Your task to perform on an android device: change notifications settings Image 0: 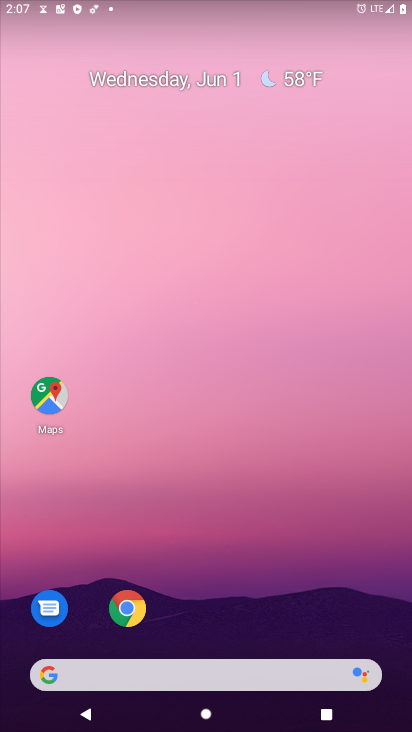
Step 0: drag from (275, 559) to (368, 3)
Your task to perform on an android device: change notifications settings Image 1: 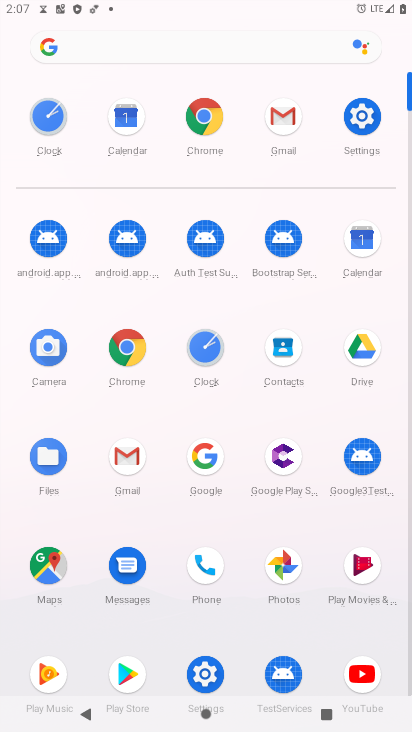
Step 1: click (365, 126)
Your task to perform on an android device: change notifications settings Image 2: 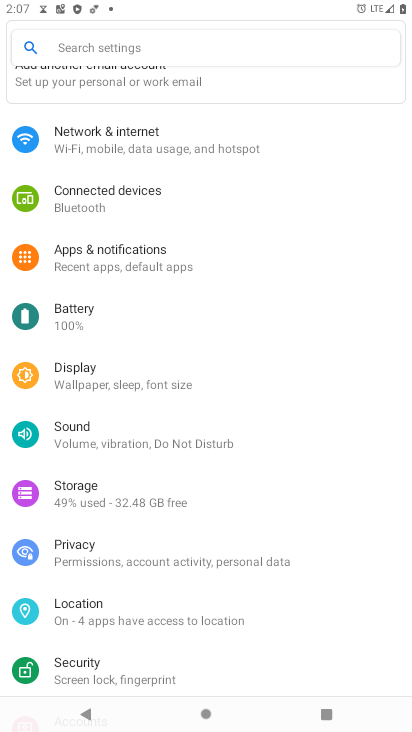
Step 2: click (130, 243)
Your task to perform on an android device: change notifications settings Image 3: 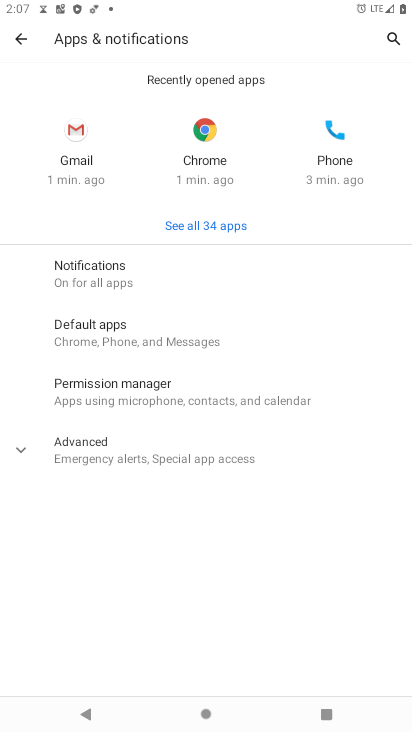
Step 3: click (112, 258)
Your task to perform on an android device: change notifications settings Image 4: 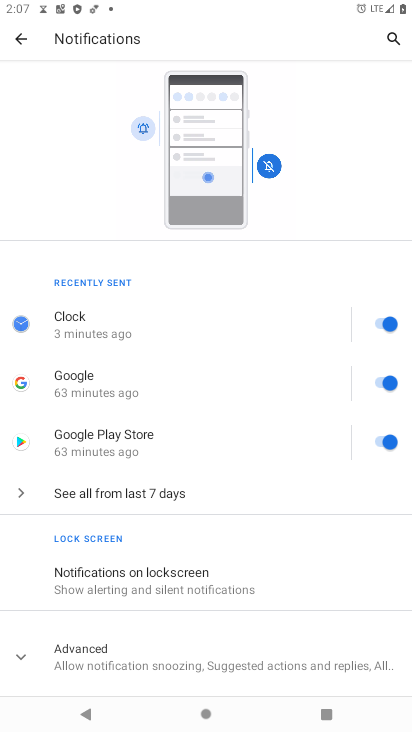
Step 4: click (103, 569)
Your task to perform on an android device: change notifications settings Image 5: 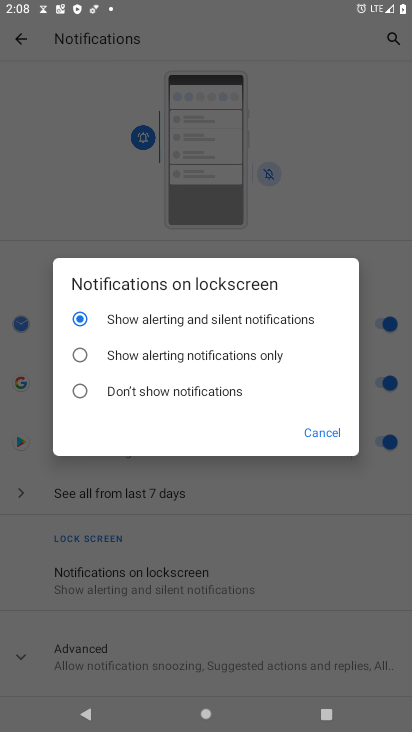
Step 5: click (113, 357)
Your task to perform on an android device: change notifications settings Image 6: 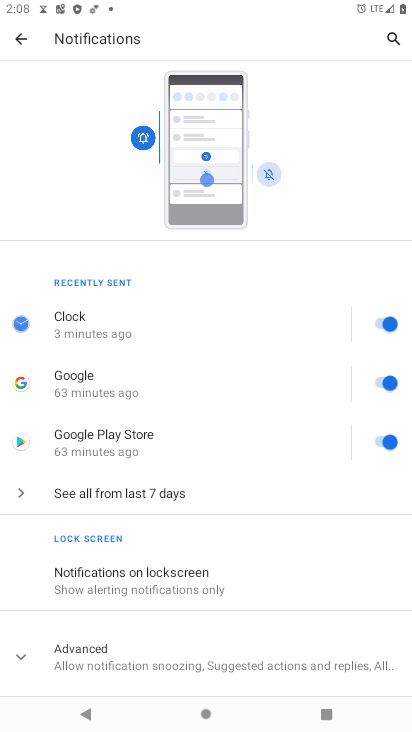
Step 6: task complete